Your task to perform on an android device: create a new album in the google photos Image 0: 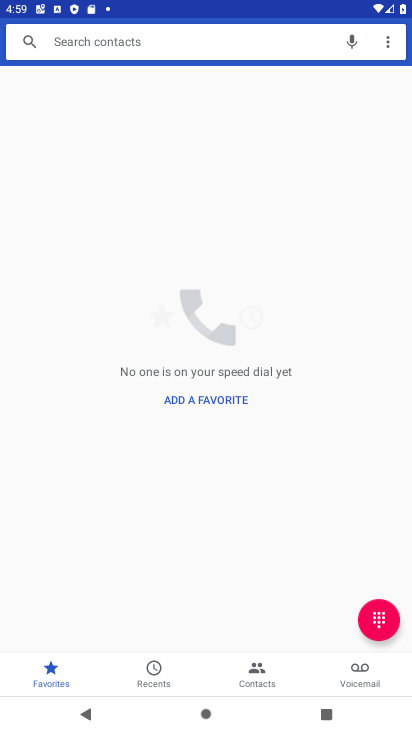
Step 0: press home button
Your task to perform on an android device: create a new album in the google photos Image 1: 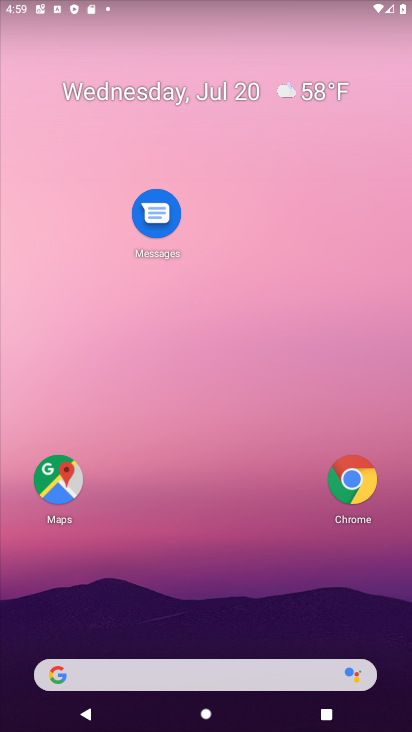
Step 1: drag from (168, 553) to (146, 3)
Your task to perform on an android device: create a new album in the google photos Image 2: 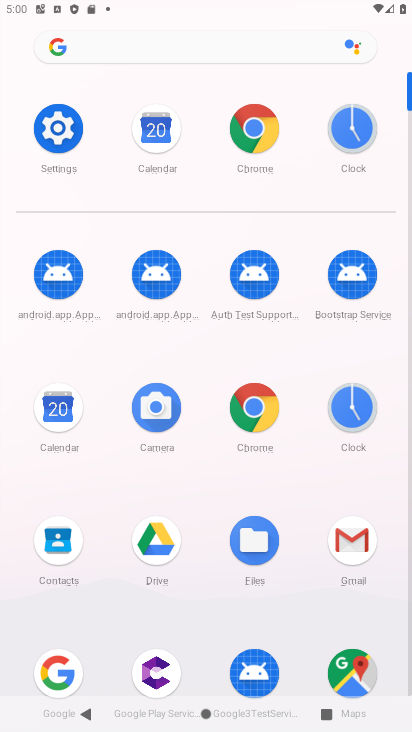
Step 2: drag from (294, 561) to (293, 373)
Your task to perform on an android device: create a new album in the google photos Image 3: 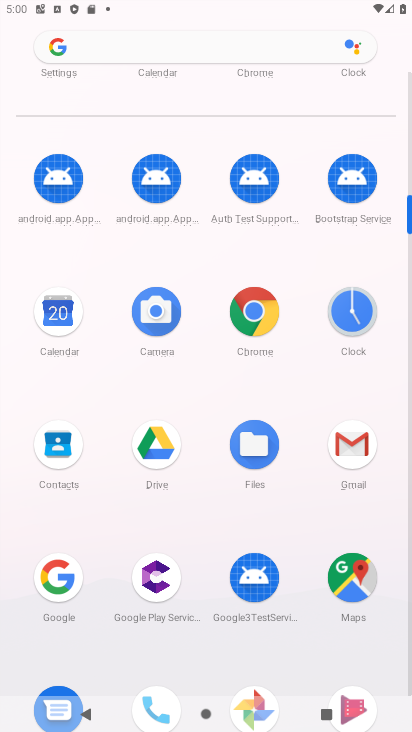
Step 3: click (266, 337)
Your task to perform on an android device: create a new album in the google photos Image 4: 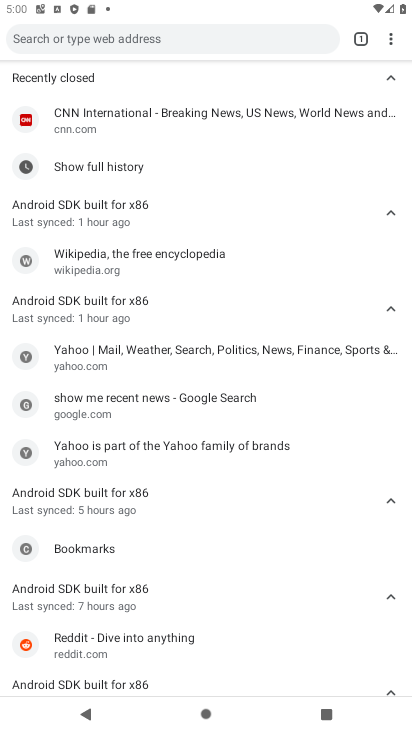
Step 4: press back button
Your task to perform on an android device: create a new album in the google photos Image 5: 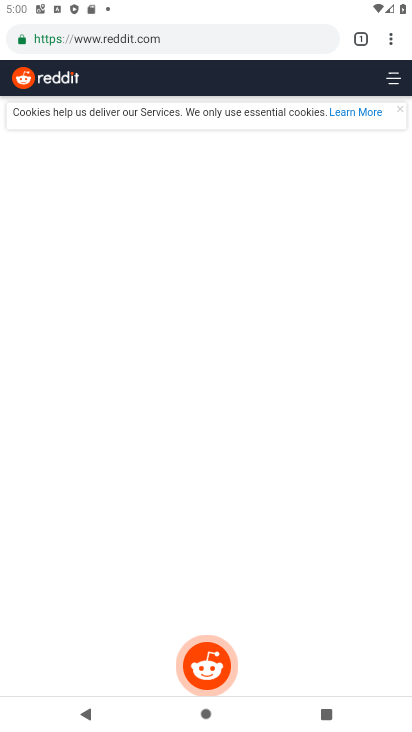
Step 5: press back button
Your task to perform on an android device: create a new album in the google photos Image 6: 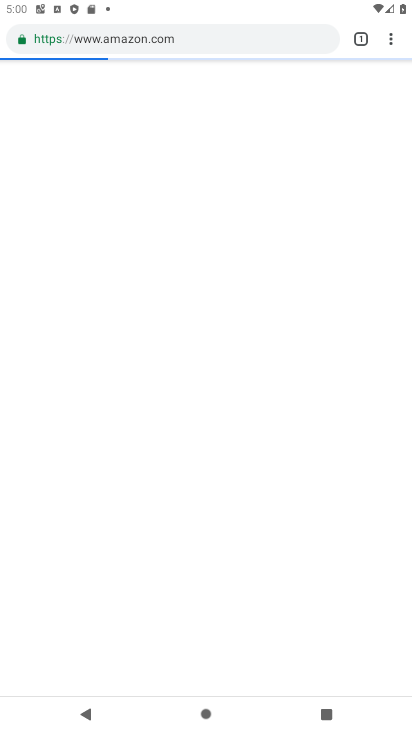
Step 6: press home button
Your task to perform on an android device: create a new album in the google photos Image 7: 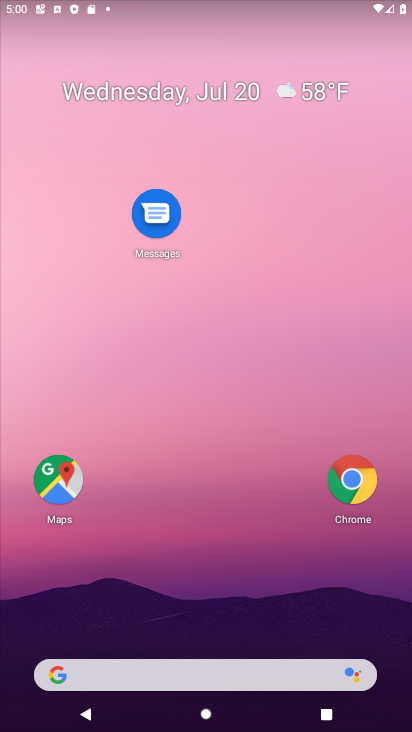
Step 7: drag from (228, 486) to (230, 200)
Your task to perform on an android device: create a new album in the google photos Image 8: 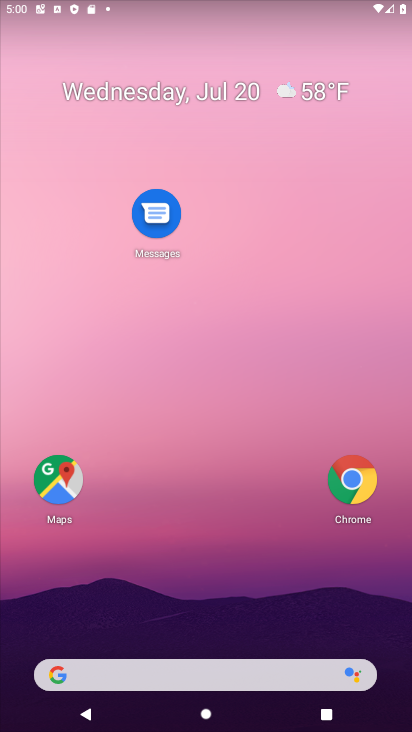
Step 8: drag from (205, 520) to (263, 118)
Your task to perform on an android device: create a new album in the google photos Image 9: 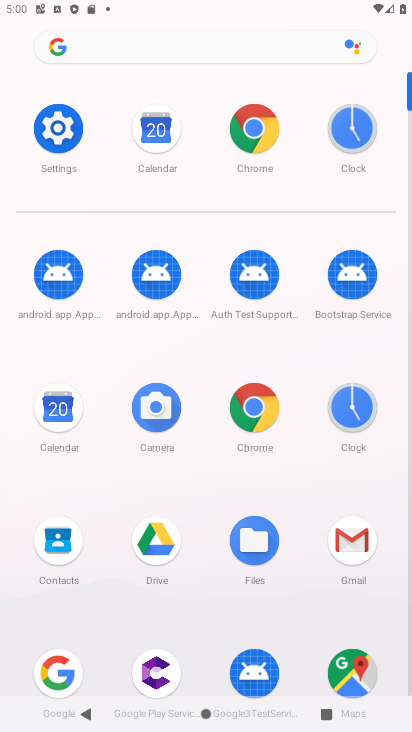
Step 9: drag from (204, 556) to (208, 344)
Your task to perform on an android device: create a new album in the google photos Image 10: 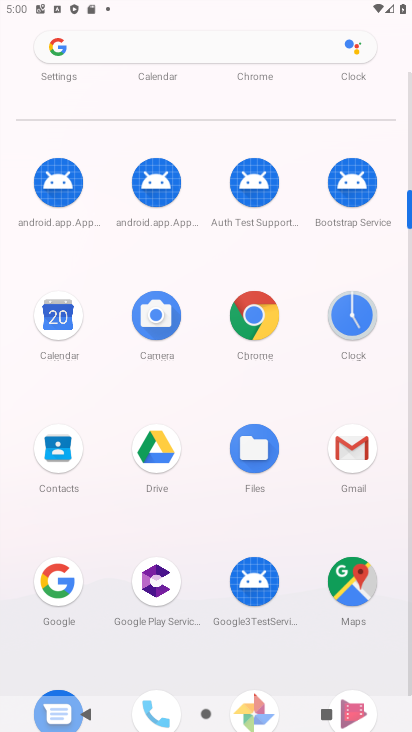
Step 10: drag from (195, 429) to (195, 286)
Your task to perform on an android device: create a new album in the google photos Image 11: 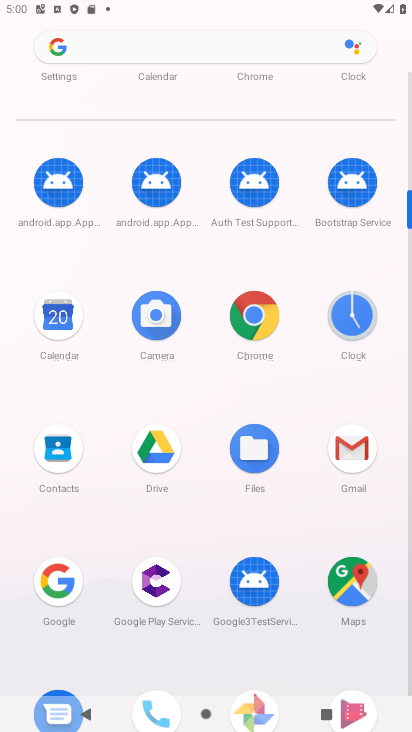
Step 11: drag from (187, 643) to (231, 319)
Your task to perform on an android device: create a new album in the google photos Image 12: 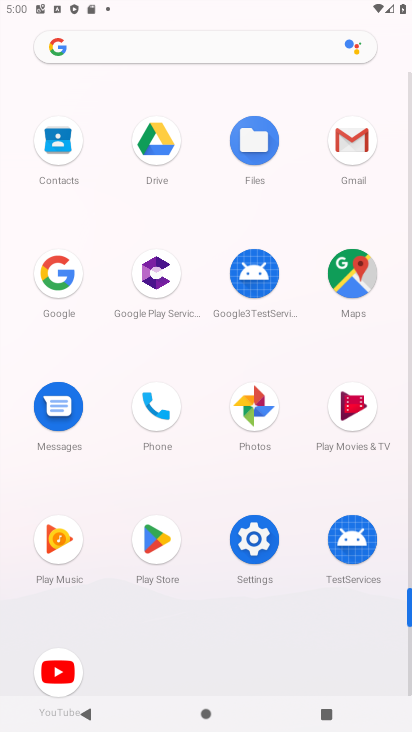
Step 12: click (246, 427)
Your task to perform on an android device: create a new album in the google photos Image 13: 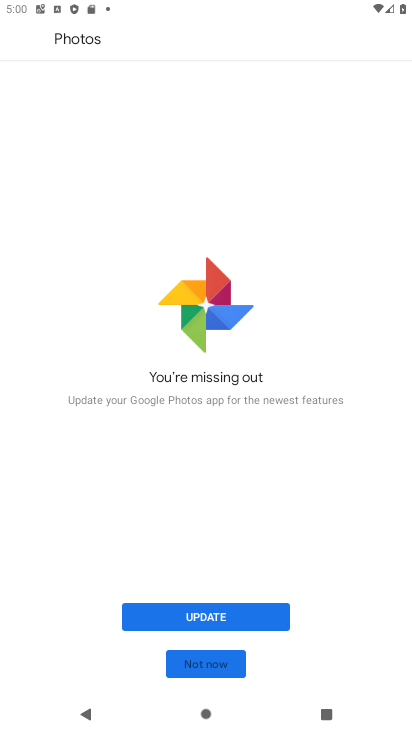
Step 13: click (159, 677)
Your task to perform on an android device: create a new album in the google photos Image 14: 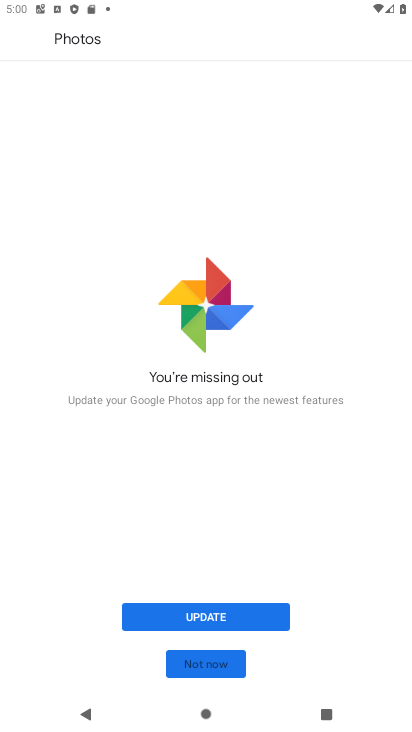
Step 14: click (193, 610)
Your task to perform on an android device: create a new album in the google photos Image 15: 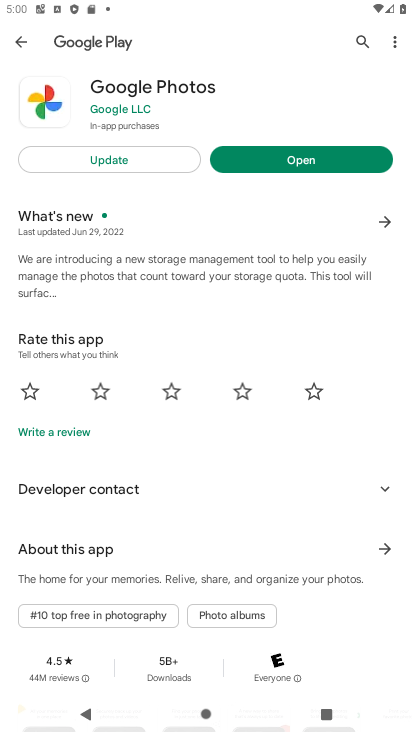
Step 15: click (90, 160)
Your task to perform on an android device: create a new album in the google photos Image 16: 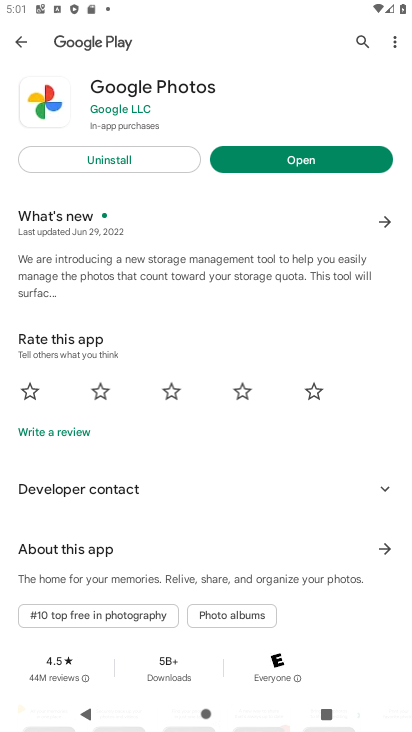
Step 16: click (269, 164)
Your task to perform on an android device: create a new album in the google photos Image 17: 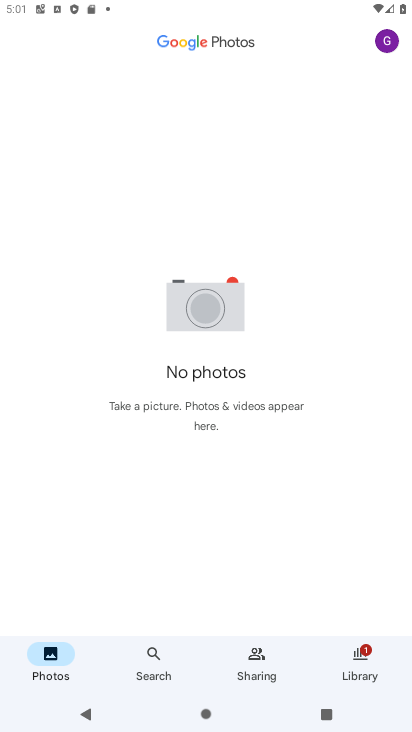
Step 17: task complete